Your task to perform on an android device: Go to location settings Image 0: 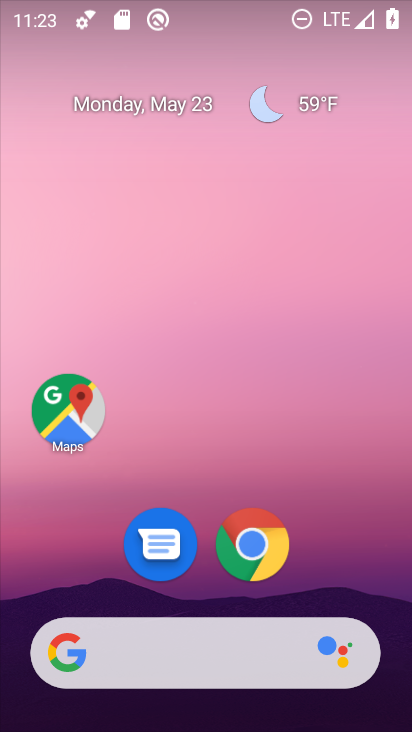
Step 0: click (390, 274)
Your task to perform on an android device: Go to location settings Image 1: 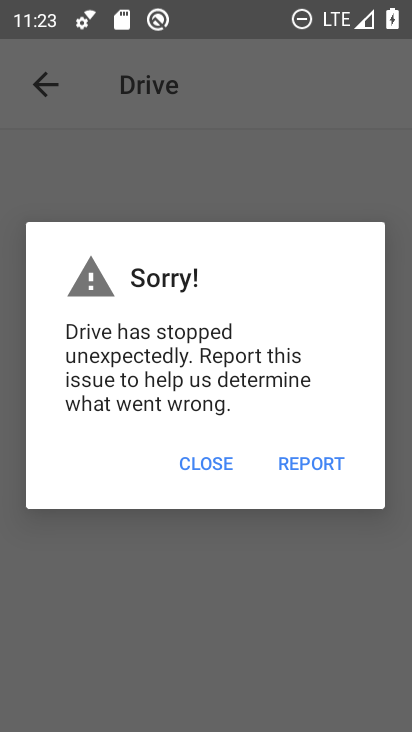
Step 1: press home button
Your task to perform on an android device: Go to location settings Image 2: 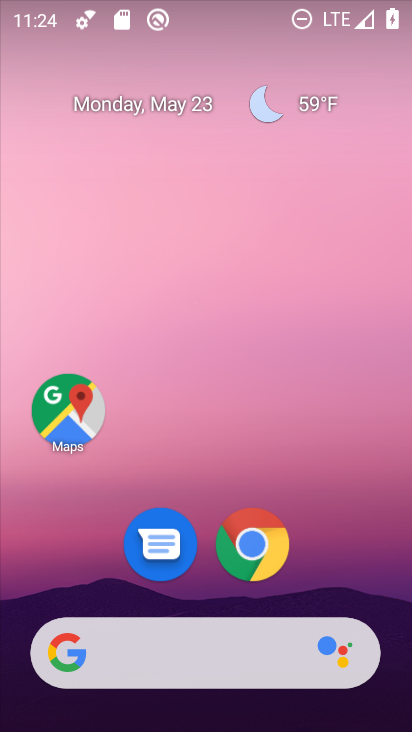
Step 2: drag from (381, 614) to (362, 202)
Your task to perform on an android device: Go to location settings Image 3: 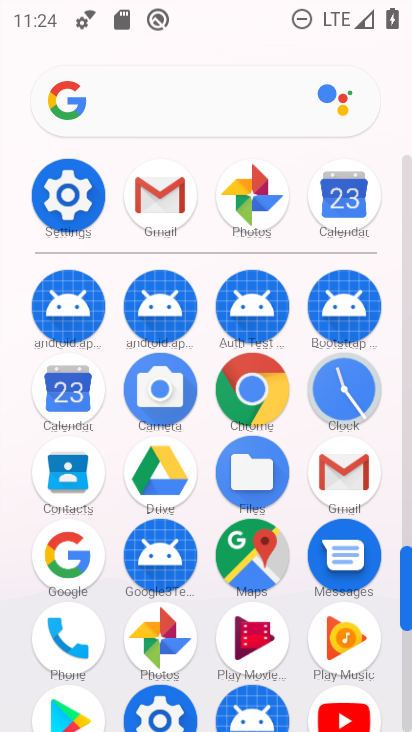
Step 3: click (406, 713)
Your task to perform on an android device: Go to location settings Image 4: 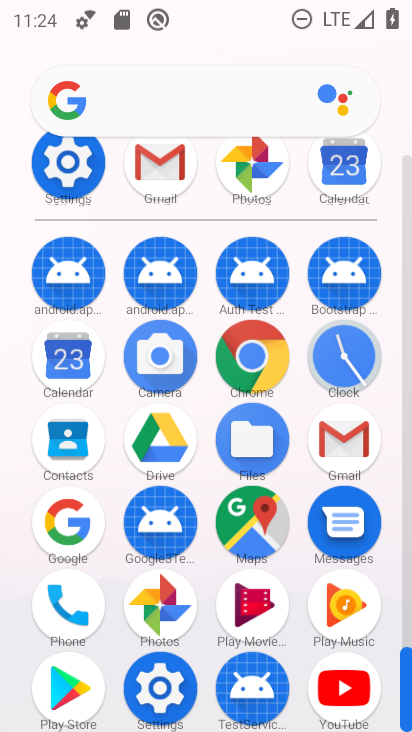
Step 4: click (163, 685)
Your task to perform on an android device: Go to location settings Image 5: 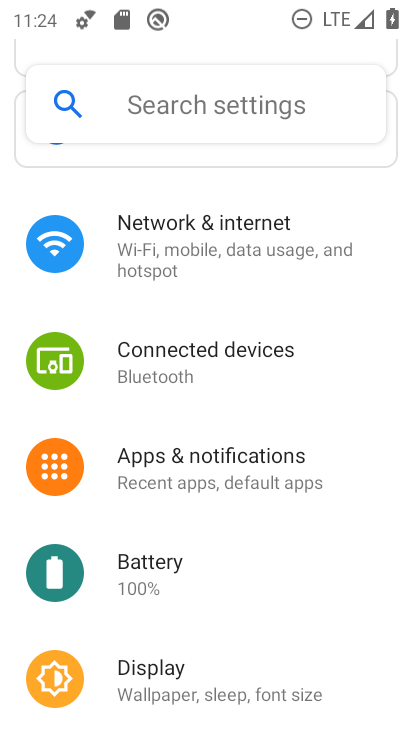
Step 5: drag from (334, 643) to (333, 192)
Your task to perform on an android device: Go to location settings Image 6: 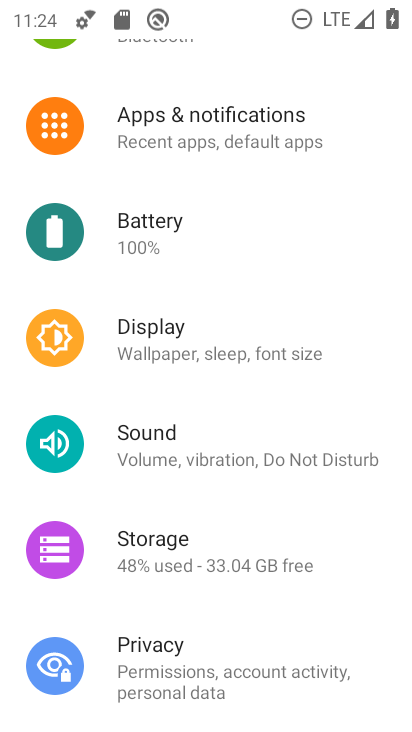
Step 6: drag from (359, 629) to (336, 196)
Your task to perform on an android device: Go to location settings Image 7: 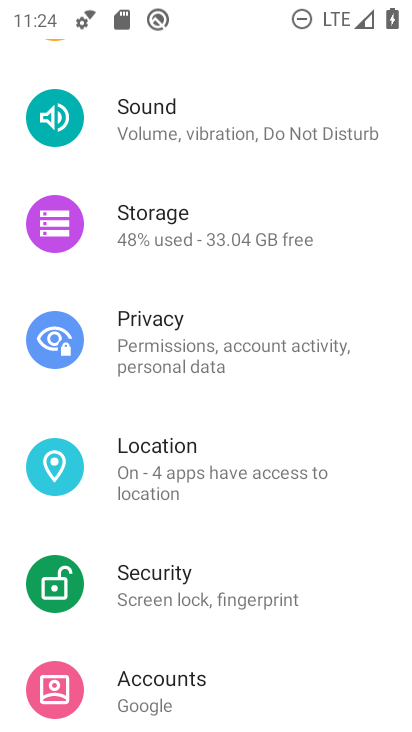
Step 7: click (144, 468)
Your task to perform on an android device: Go to location settings Image 8: 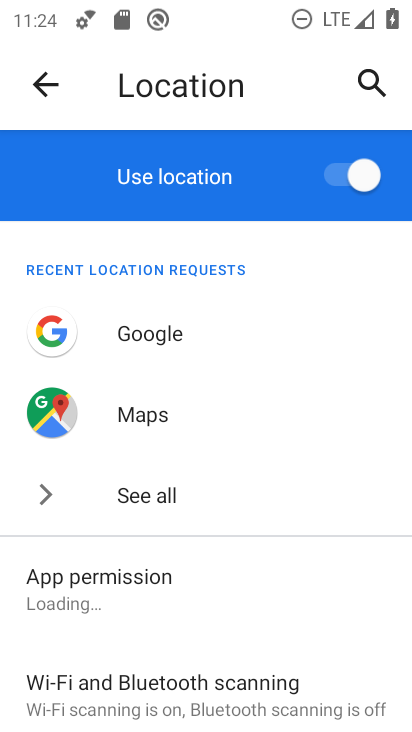
Step 8: drag from (274, 615) to (269, 279)
Your task to perform on an android device: Go to location settings Image 9: 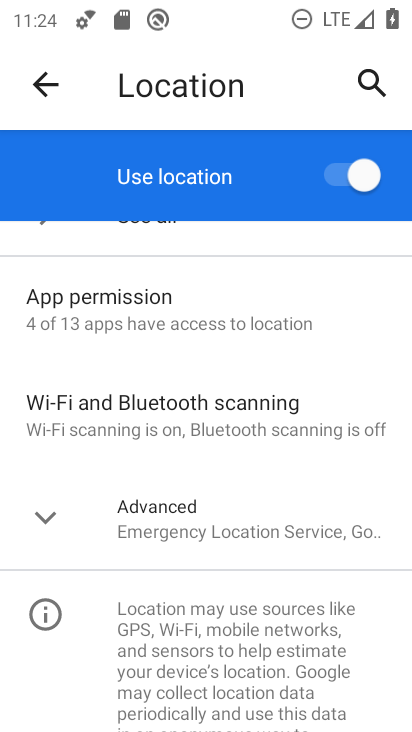
Step 9: click (42, 522)
Your task to perform on an android device: Go to location settings Image 10: 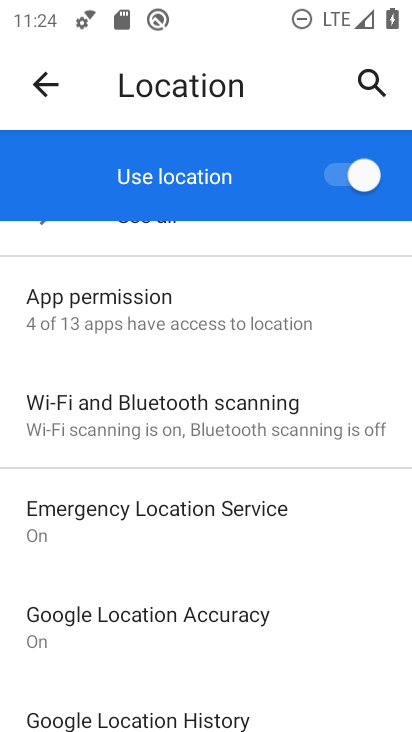
Step 10: task complete